Your task to perform on an android device: toggle pop-ups in chrome Image 0: 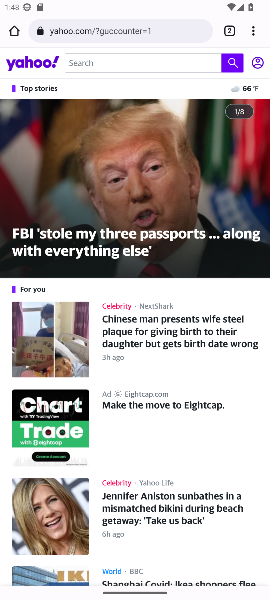
Step 0: click (253, 26)
Your task to perform on an android device: toggle pop-ups in chrome Image 1: 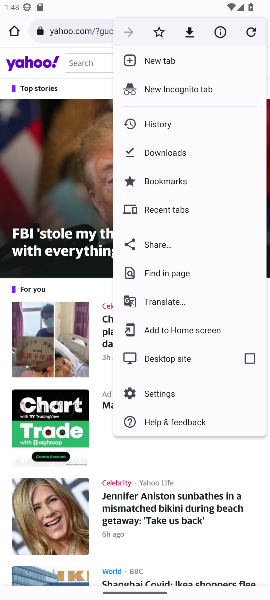
Step 1: click (154, 394)
Your task to perform on an android device: toggle pop-ups in chrome Image 2: 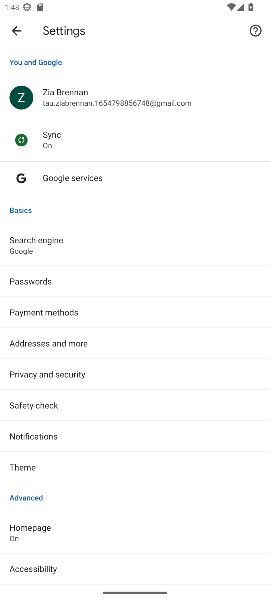
Step 2: drag from (138, 505) to (154, 274)
Your task to perform on an android device: toggle pop-ups in chrome Image 3: 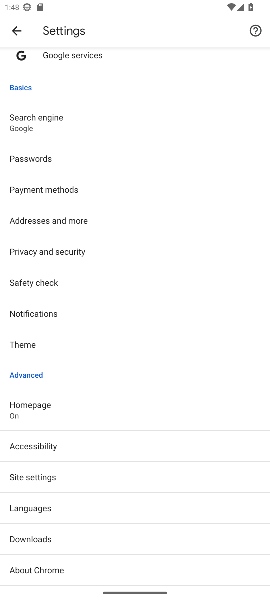
Step 3: click (24, 480)
Your task to perform on an android device: toggle pop-ups in chrome Image 4: 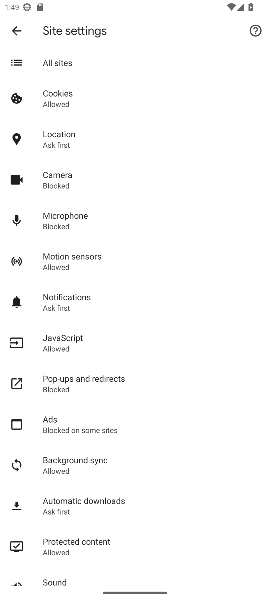
Step 4: click (75, 378)
Your task to perform on an android device: toggle pop-ups in chrome Image 5: 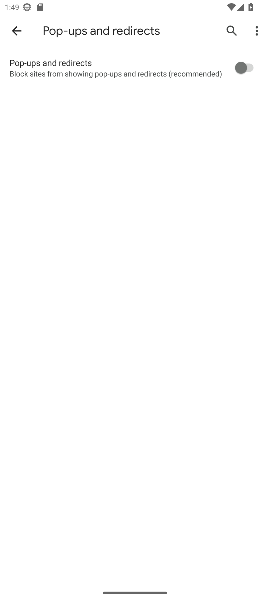
Step 5: click (242, 64)
Your task to perform on an android device: toggle pop-ups in chrome Image 6: 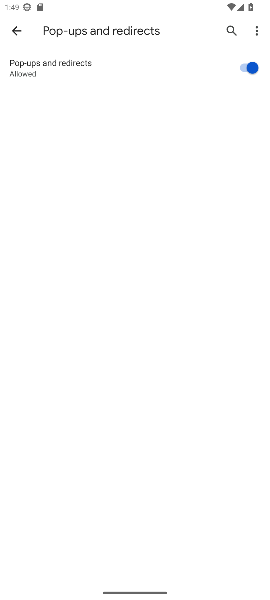
Step 6: task complete